Your task to perform on an android device: toggle translation in the chrome app Image 0: 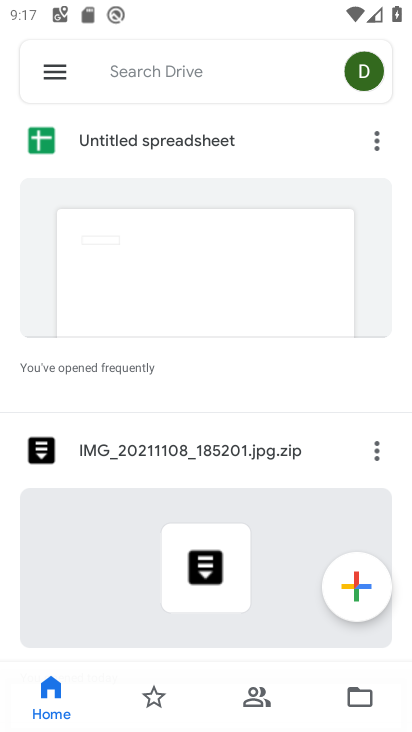
Step 0: press home button
Your task to perform on an android device: toggle translation in the chrome app Image 1: 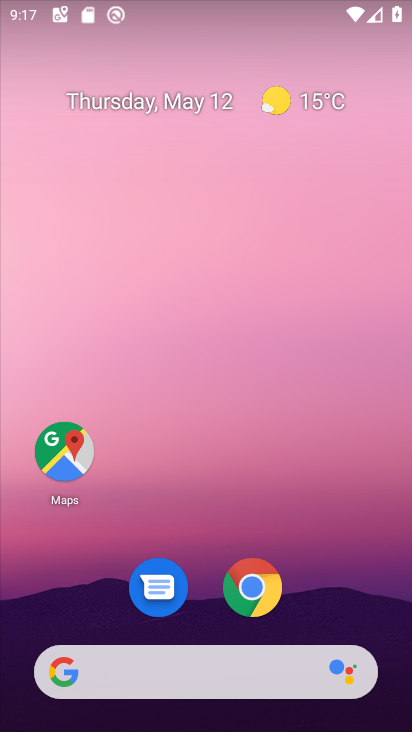
Step 1: drag from (351, 304) to (257, 14)
Your task to perform on an android device: toggle translation in the chrome app Image 2: 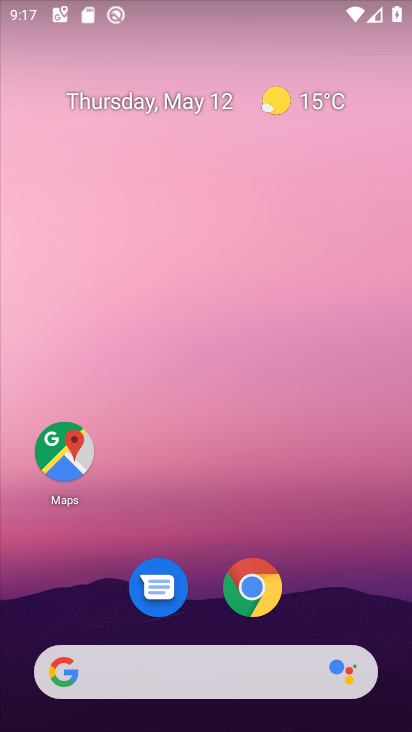
Step 2: drag from (338, 499) to (309, 112)
Your task to perform on an android device: toggle translation in the chrome app Image 3: 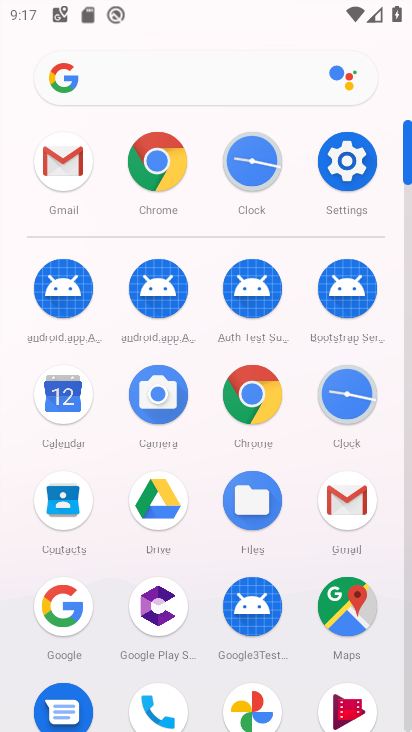
Step 3: click (171, 181)
Your task to perform on an android device: toggle translation in the chrome app Image 4: 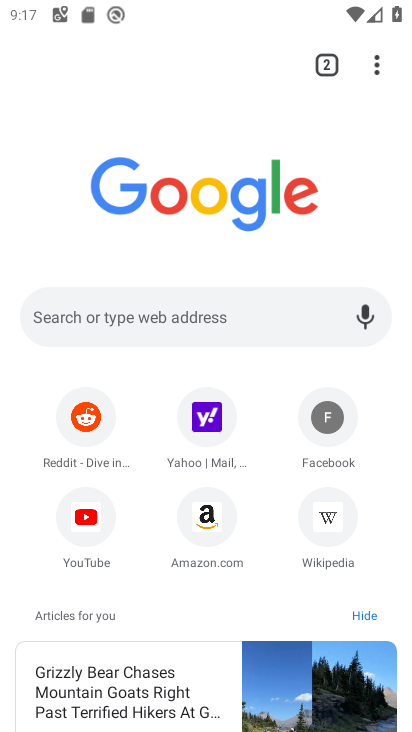
Step 4: click (372, 68)
Your task to perform on an android device: toggle translation in the chrome app Image 5: 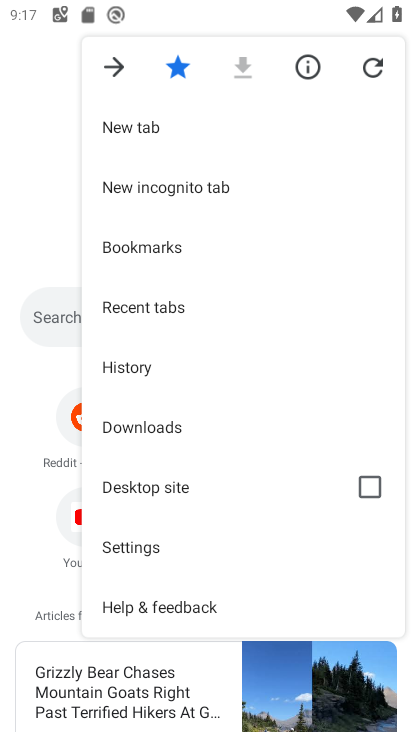
Step 5: click (187, 553)
Your task to perform on an android device: toggle translation in the chrome app Image 6: 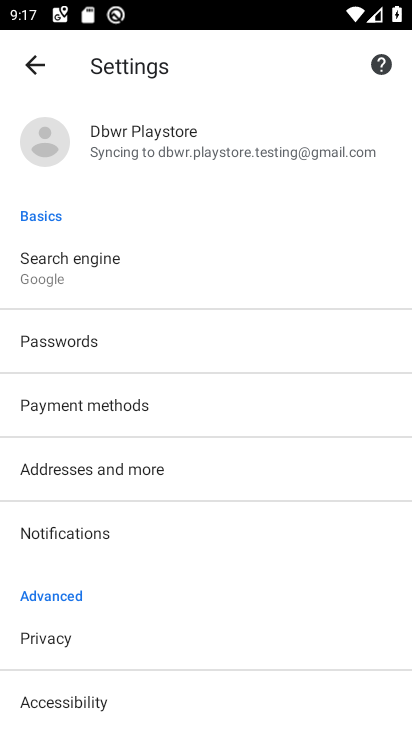
Step 6: drag from (178, 601) to (214, 308)
Your task to perform on an android device: toggle translation in the chrome app Image 7: 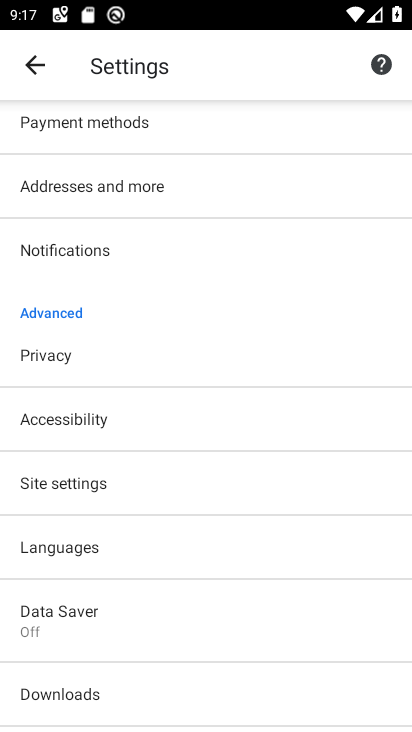
Step 7: click (171, 554)
Your task to perform on an android device: toggle translation in the chrome app Image 8: 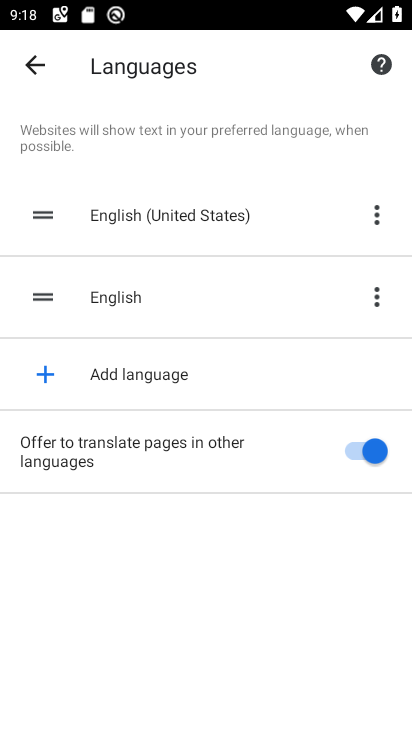
Step 8: click (358, 448)
Your task to perform on an android device: toggle translation in the chrome app Image 9: 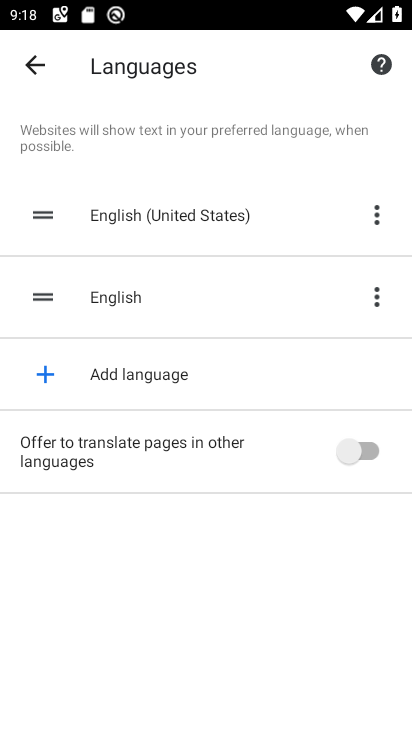
Step 9: task complete